Your task to perform on an android device: turn off javascript in the chrome app Image 0: 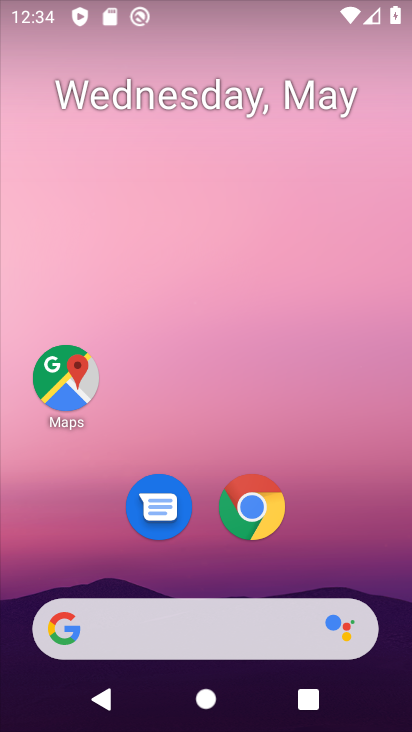
Step 0: click (259, 511)
Your task to perform on an android device: turn off javascript in the chrome app Image 1: 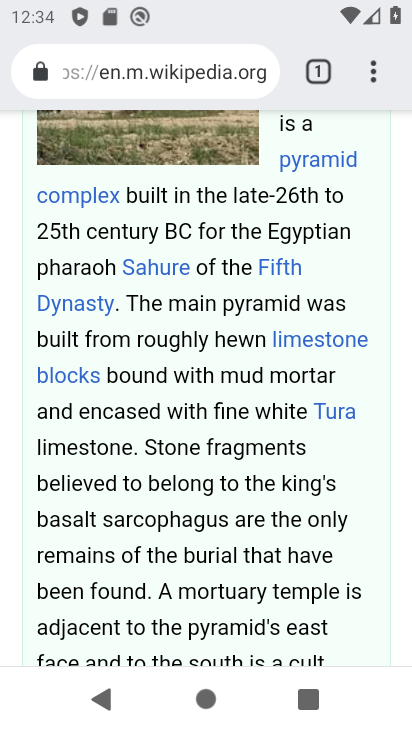
Step 1: click (370, 71)
Your task to perform on an android device: turn off javascript in the chrome app Image 2: 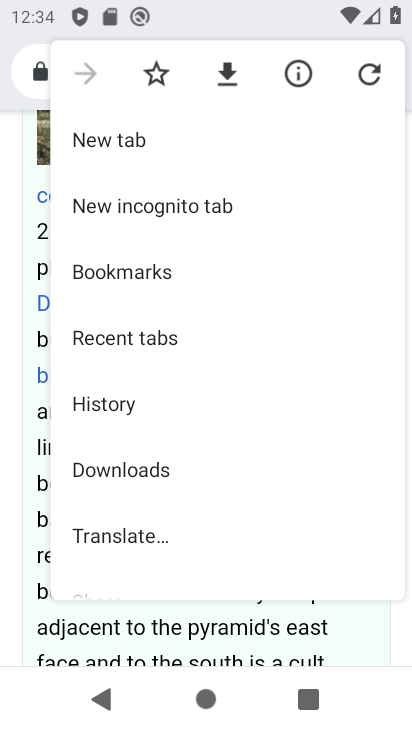
Step 2: drag from (228, 489) to (268, 87)
Your task to perform on an android device: turn off javascript in the chrome app Image 3: 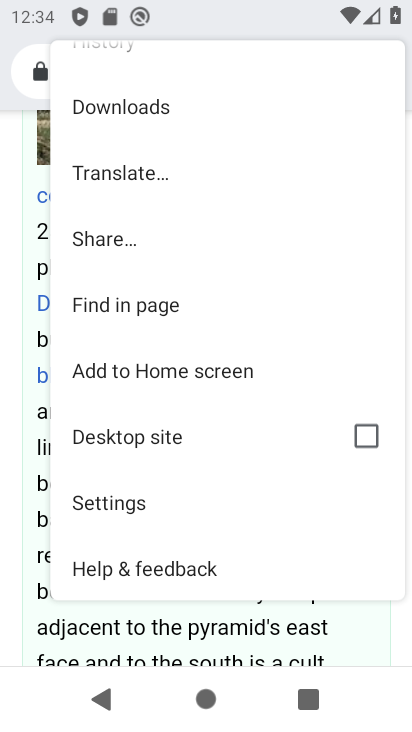
Step 3: click (120, 500)
Your task to perform on an android device: turn off javascript in the chrome app Image 4: 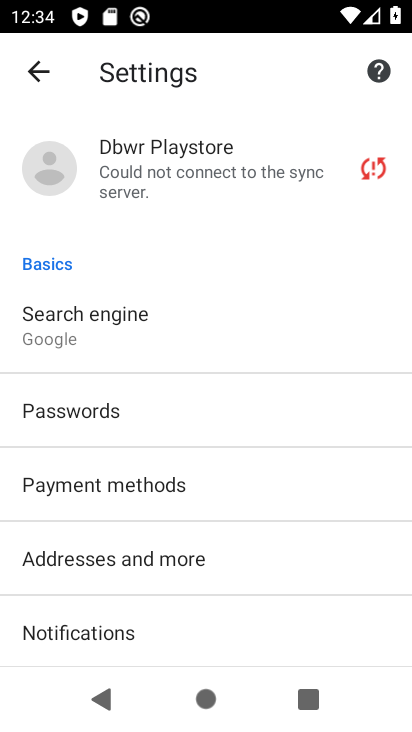
Step 4: drag from (251, 609) to (199, 232)
Your task to perform on an android device: turn off javascript in the chrome app Image 5: 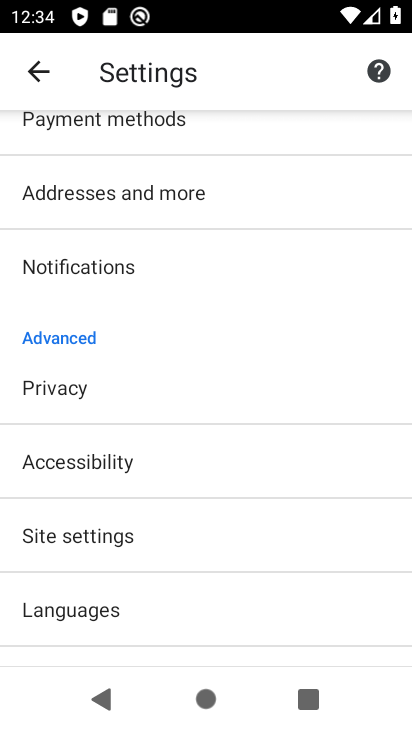
Step 5: click (48, 526)
Your task to perform on an android device: turn off javascript in the chrome app Image 6: 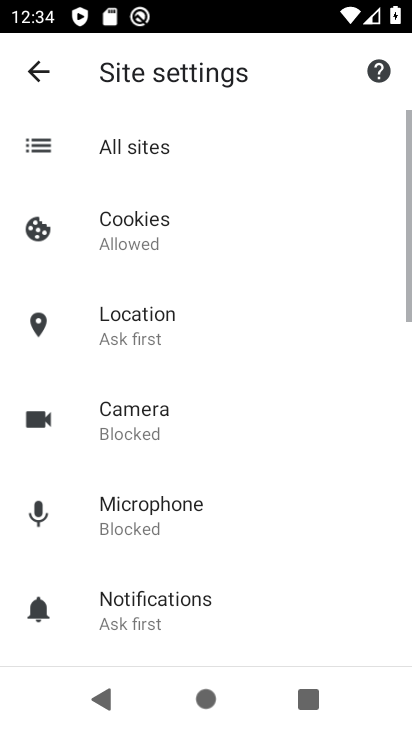
Step 6: drag from (294, 557) to (239, 161)
Your task to perform on an android device: turn off javascript in the chrome app Image 7: 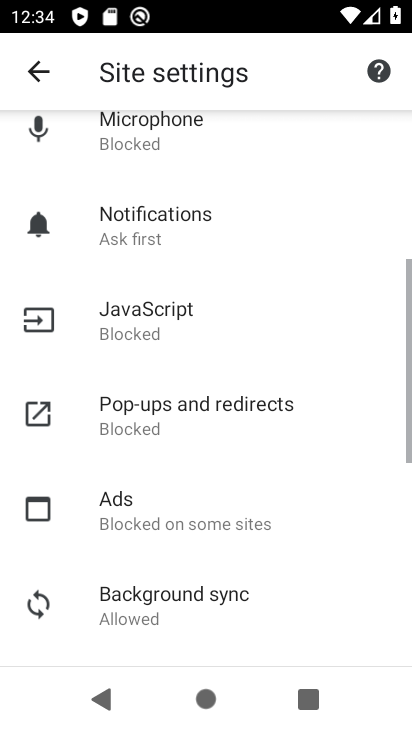
Step 7: click (140, 316)
Your task to perform on an android device: turn off javascript in the chrome app Image 8: 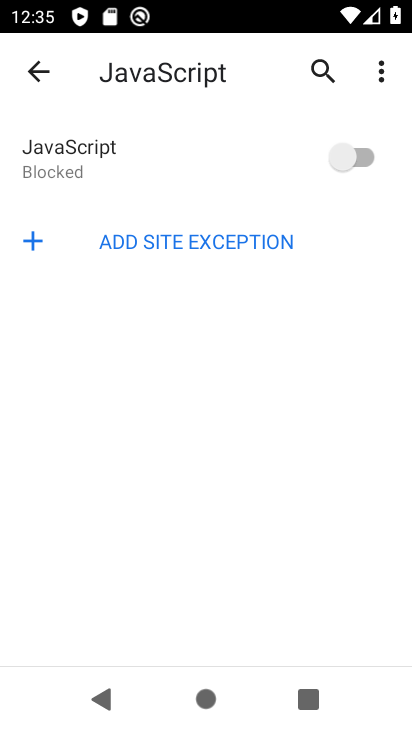
Step 8: task complete